Your task to perform on an android device: Open the phone app and click the voicemail tab. Image 0: 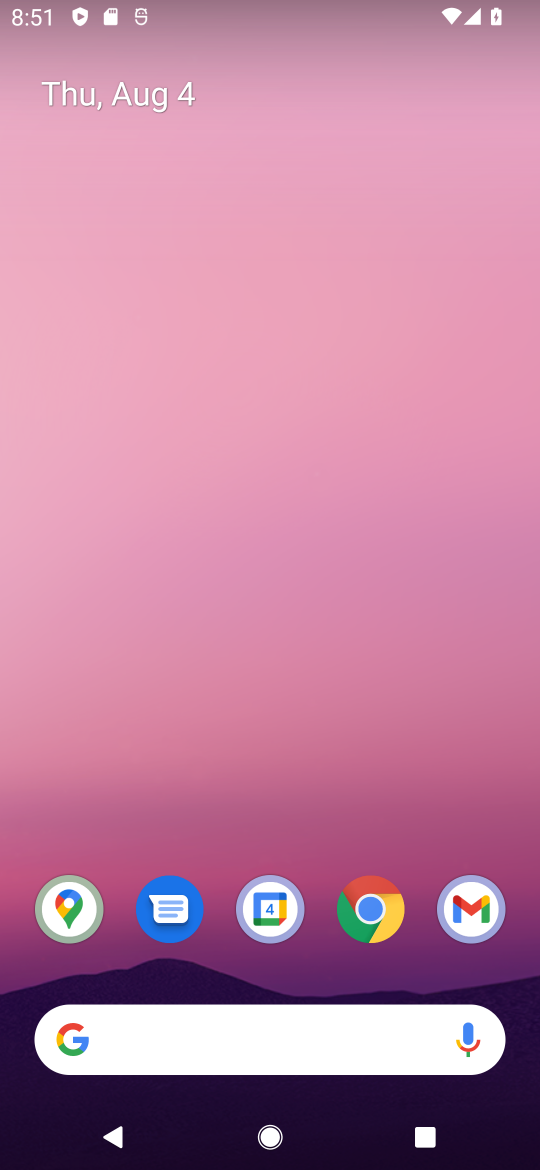
Step 0: press home button
Your task to perform on an android device: Open the phone app and click the voicemail tab. Image 1: 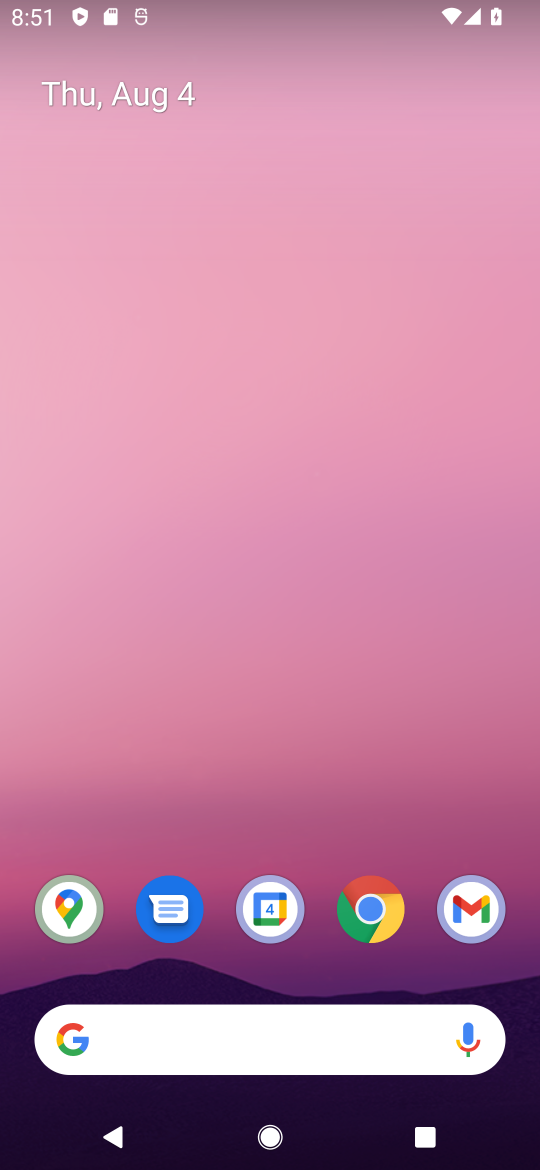
Step 1: drag from (302, 830) to (312, 323)
Your task to perform on an android device: Open the phone app and click the voicemail tab. Image 2: 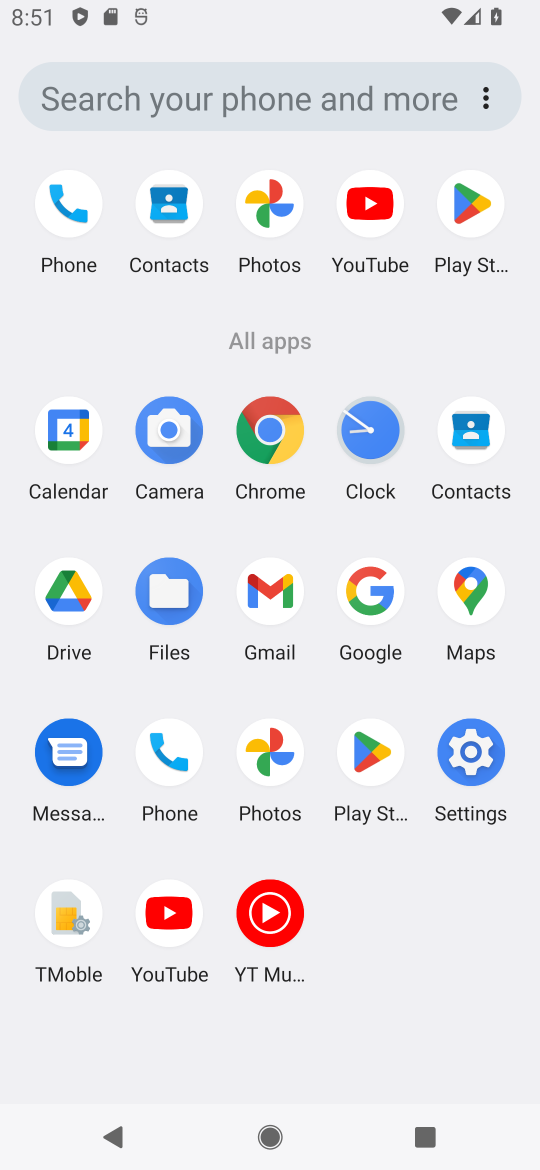
Step 2: click (182, 756)
Your task to perform on an android device: Open the phone app and click the voicemail tab. Image 3: 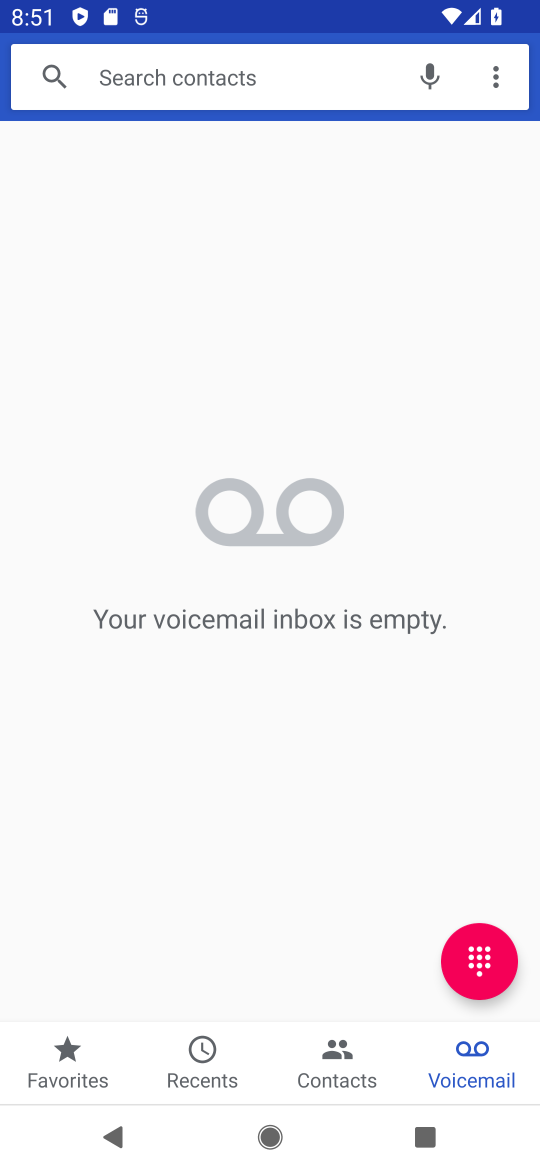
Step 3: task complete